Your task to perform on an android device: toggle show notifications on the lock screen Image 0: 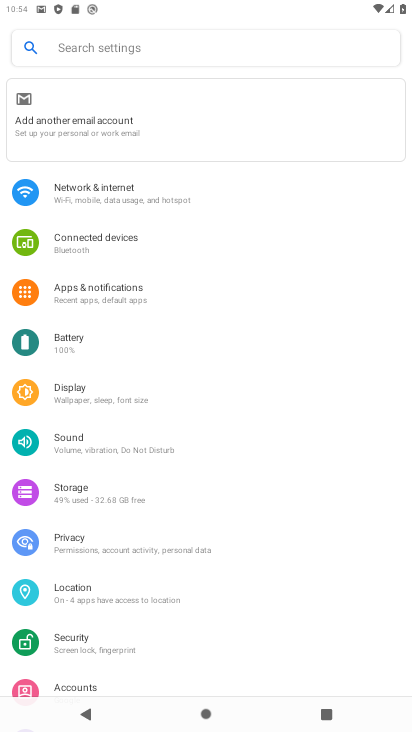
Step 0: press home button
Your task to perform on an android device: toggle show notifications on the lock screen Image 1: 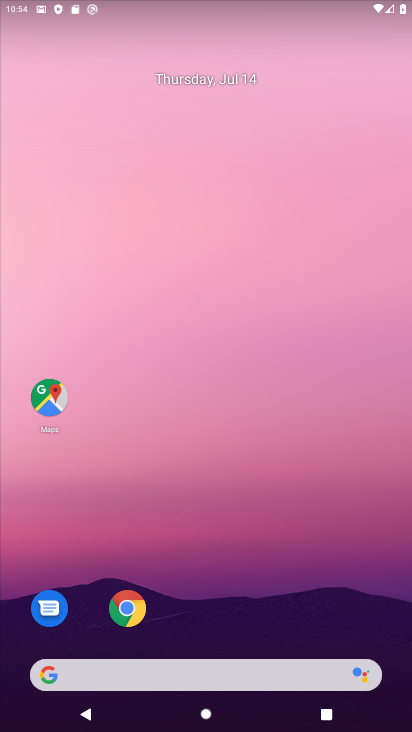
Step 1: drag from (291, 555) to (292, 46)
Your task to perform on an android device: toggle show notifications on the lock screen Image 2: 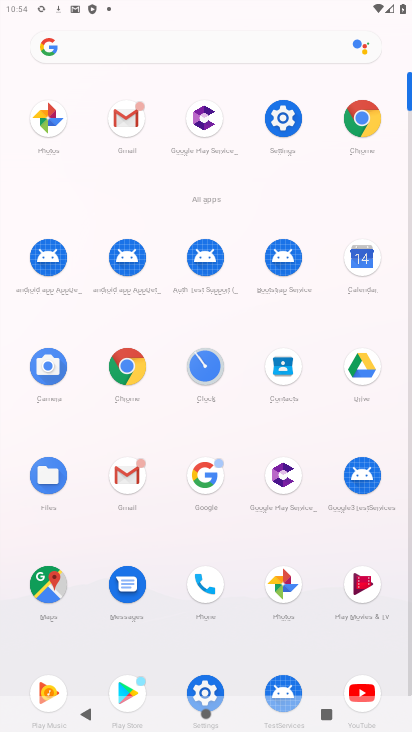
Step 2: click (277, 124)
Your task to perform on an android device: toggle show notifications on the lock screen Image 3: 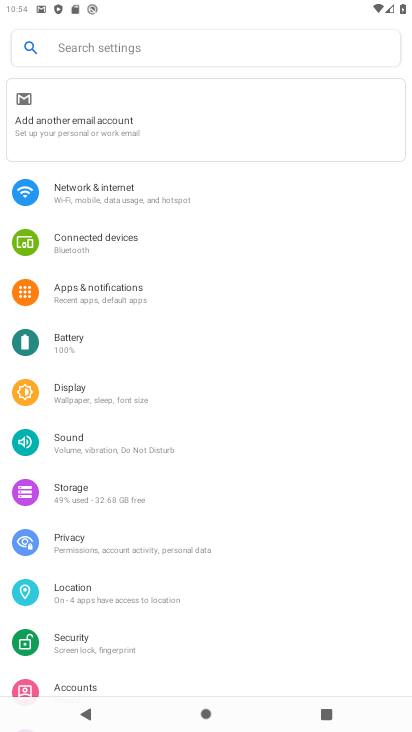
Step 3: click (109, 310)
Your task to perform on an android device: toggle show notifications on the lock screen Image 4: 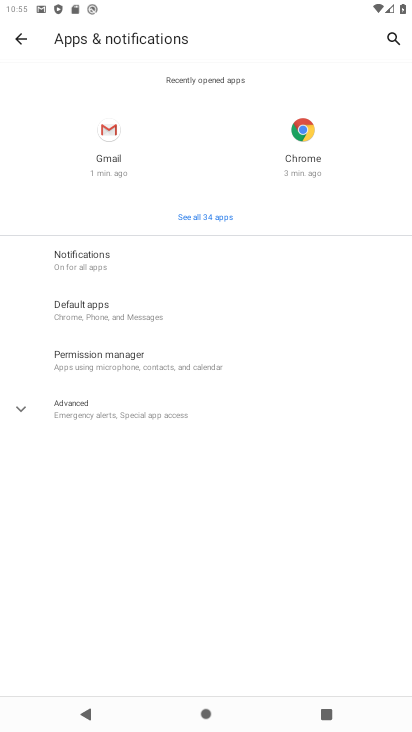
Step 4: click (71, 251)
Your task to perform on an android device: toggle show notifications on the lock screen Image 5: 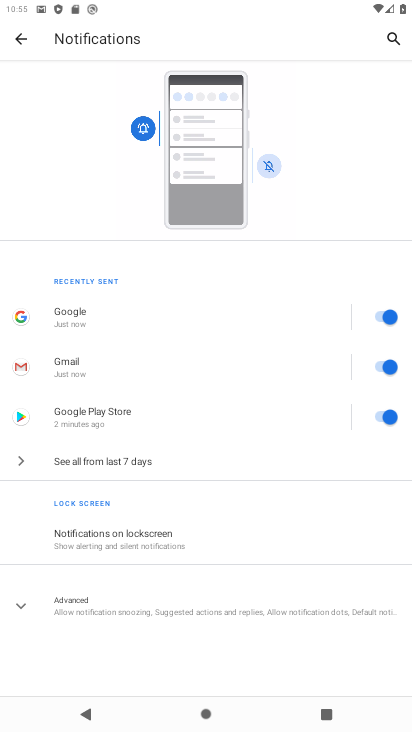
Step 5: click (141, 534)
Your task to perform on an android device: toggle show notifications on the lock screen Image 6: 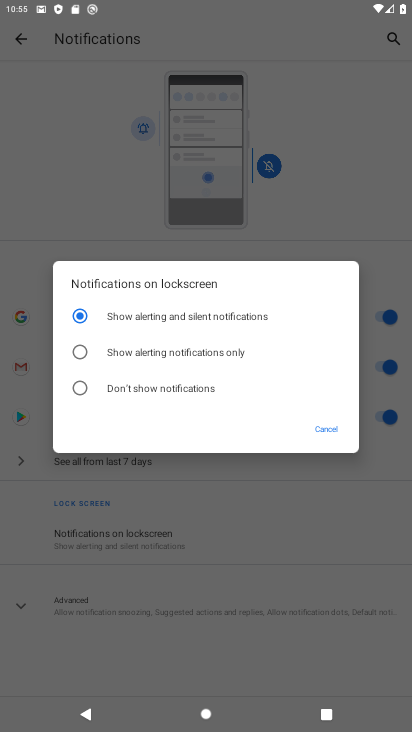
Step 6: click (102, 344)
Your task to perform on an android device: toggle show notifications on the lock screen Image 7: 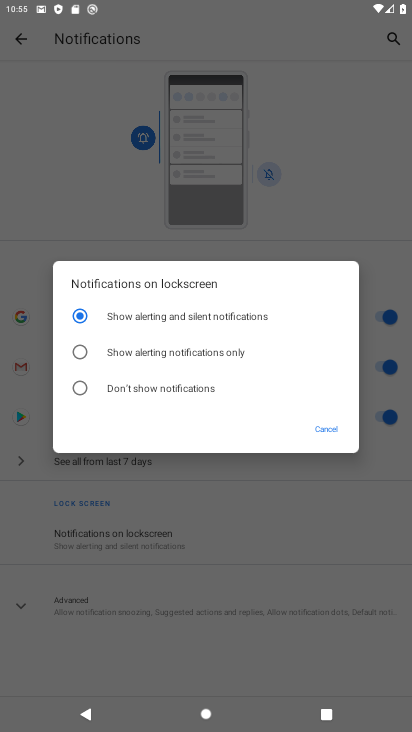
Step 7: click (150, 348)
Your task to perform on an android device: toggle show notifications on the lock screen Image 8: 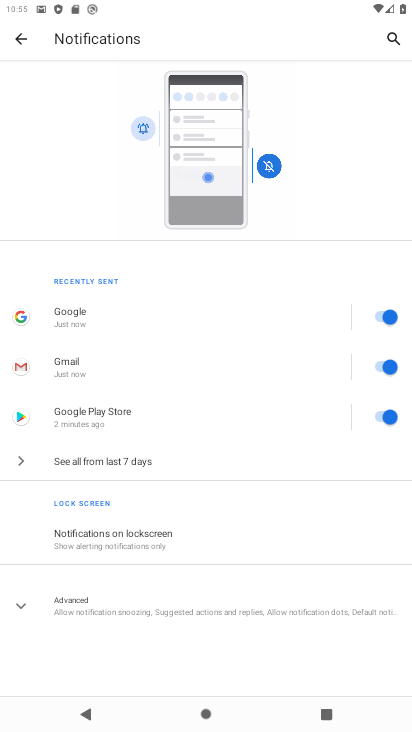
Step 8: task complete